Your task to perform on an android device: Open eBay Image 0: 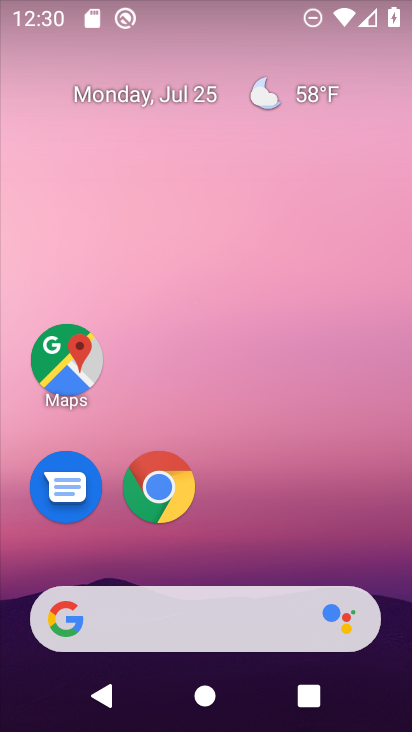
Step 0: click (173, 489)
Your task to perform on an android device: Open eBay Image 1: 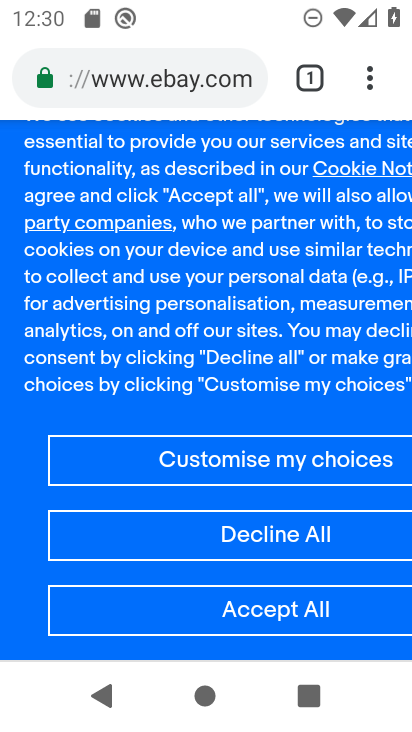
Step 1: task complete